Your task to perform on an android device: snooze an email in the gmail app Image 0: 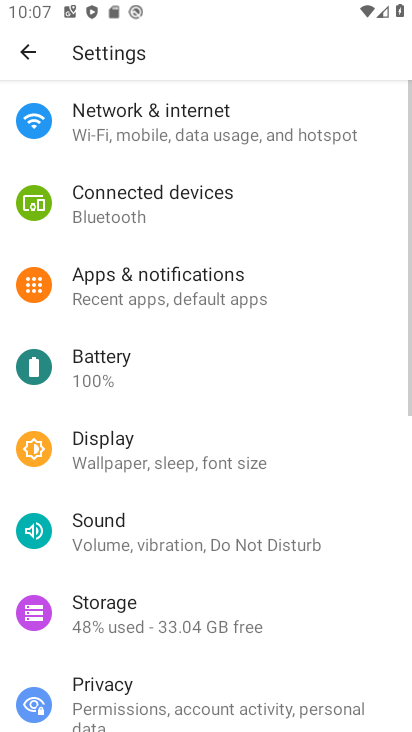
Step 0: press home button
Your task to perform on an android device: snooze an email in the gmail app Image 1: 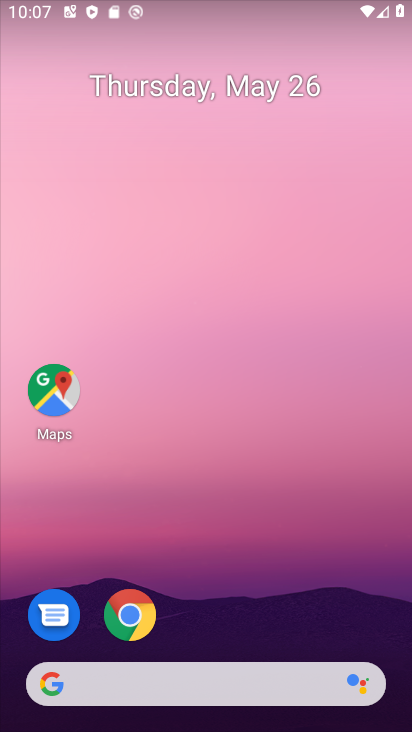
Step 1: drag from (329, 672) to (301, 94)
Your task to perform on an android device: snooze an email in the gmail app Image 2: 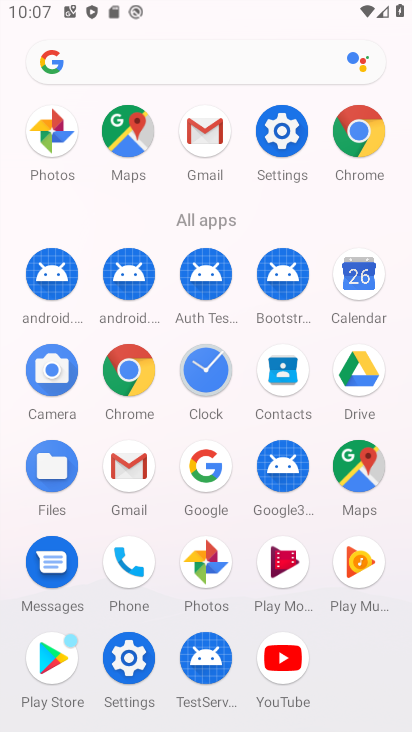
Step 2: click (121, 477)
Your task to perform on an android device: snooze an email in the gmail app Image 3: 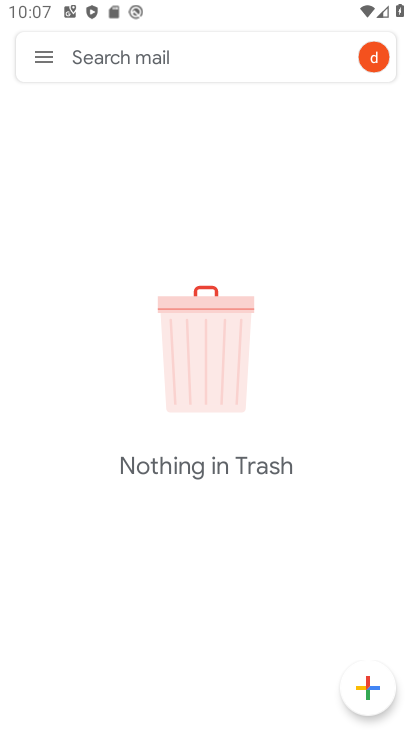
Step 3: click (35, 52)
Your task to perform on an android device: snooze an email in the gmail app Image 4: 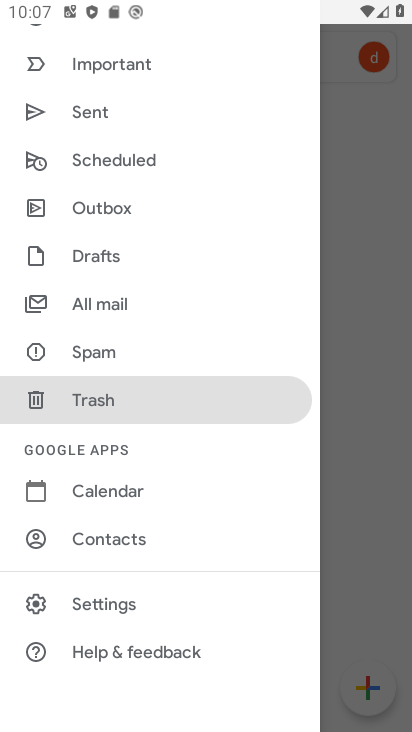
Step 4: drag from (246, 143) to (198, 698)
Your task to perform on an android device: snooze an email in the gmail app Image 5: 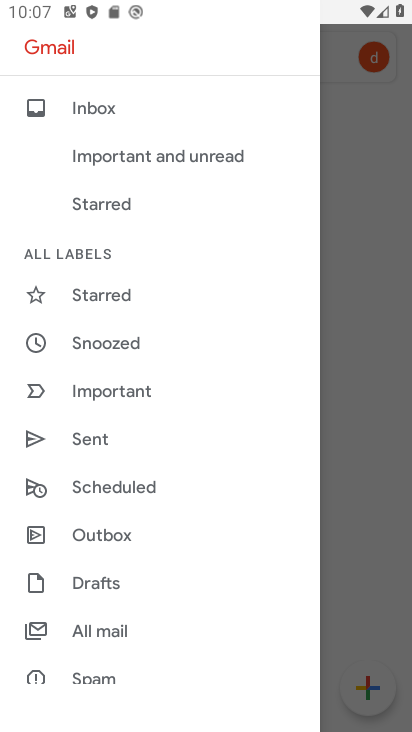
Step 5: click (120, 108)
Your task to perform on an android device: snooze an email in the gmail app Image 6: 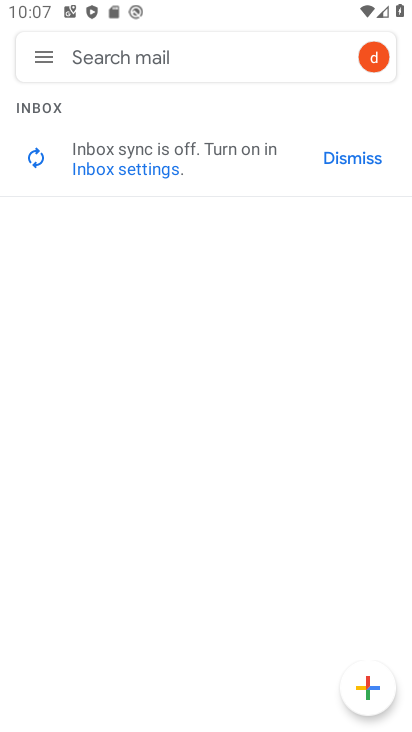
Step 6: task complete